Your task to perform on an android device: create a new album in the google photos Image 0: 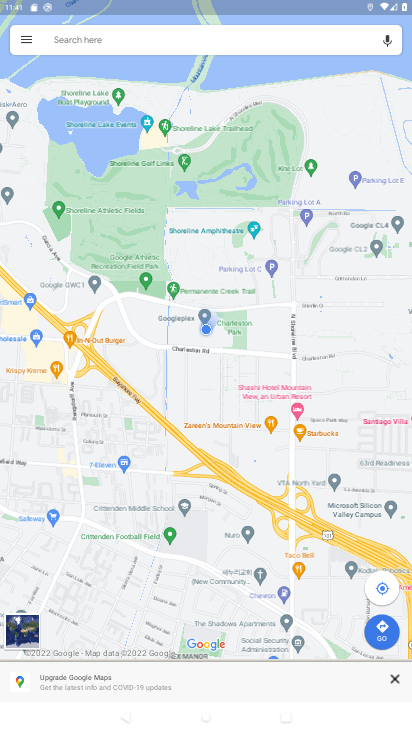
Step 0: press home button
Your task to perform on an android device: create a new album in the google photos Image 1: 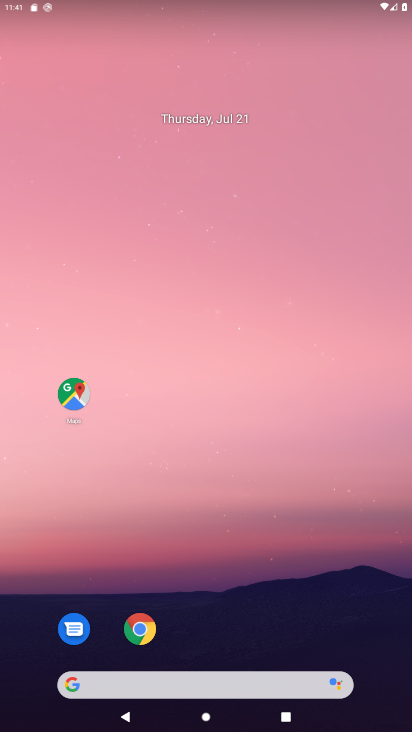
Step 1: drag from (202, 636) to (266, 0)
Your task to perform on an android device: create a new album in the google photos Image 2: 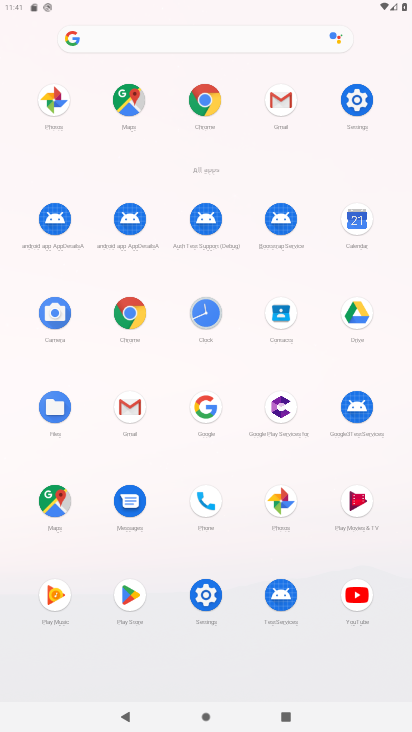
Step 2: click (274, 504)
Your task to perform on an android device: create a new album in the google photos Image 3: 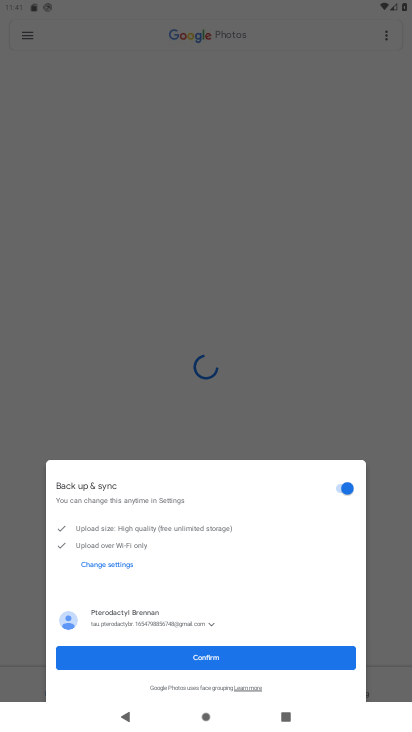
Step 3: click (234, 656)
Your task to perform on an android device: create a new album in the google photos Image 4: 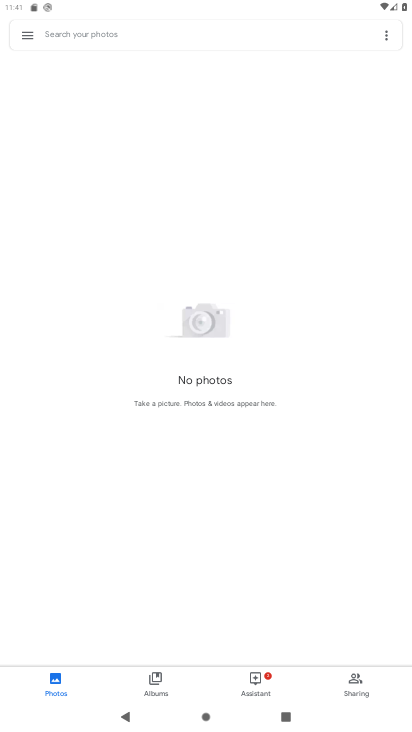
Step 4: click (156, 680)
Your task to perform on an android device: create a new album in the google photos Image 5: 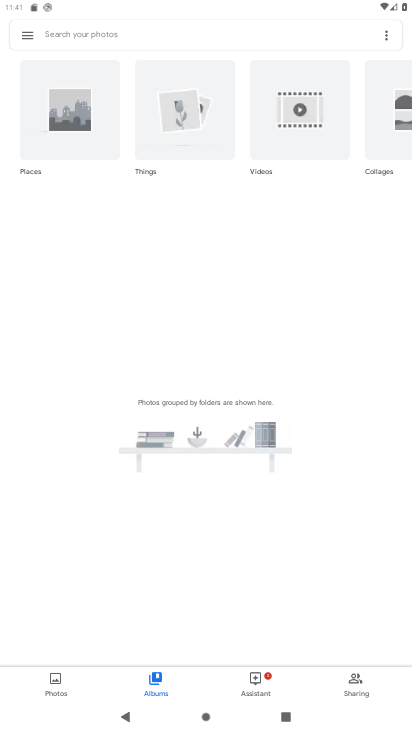
Step 5: task complete